Your task to perform on an android device: allow cookies in the chrome app Image 0: 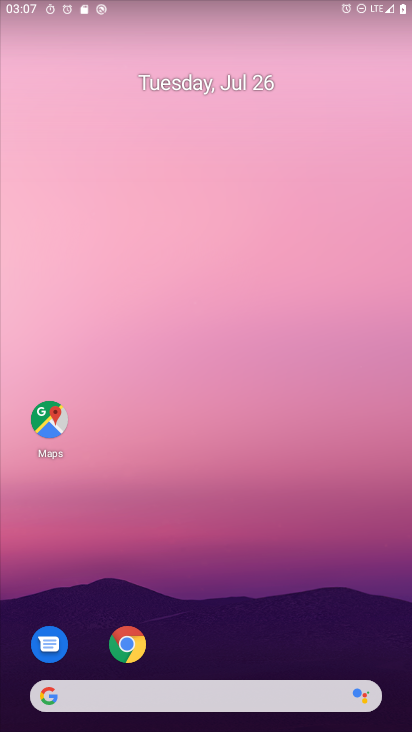
Step 0: click (124, 651)
Your task to perform on an android device: allow cookies in the chrome app Image 1: 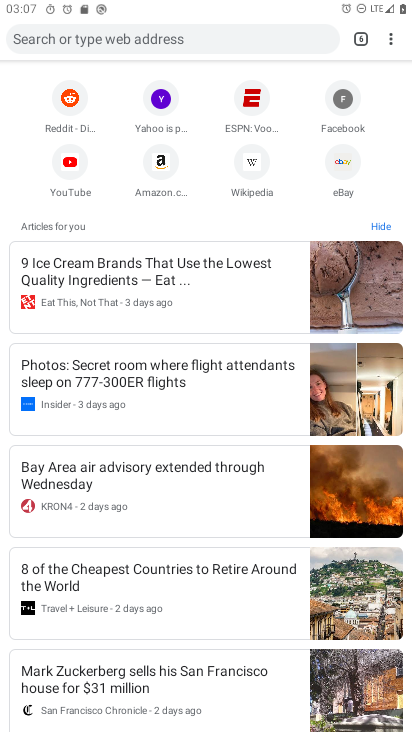
Step 1: drag from (392, 37) to (274, 320)
Your task to perform on an android device: allow cookies in the chrome app Image 2: 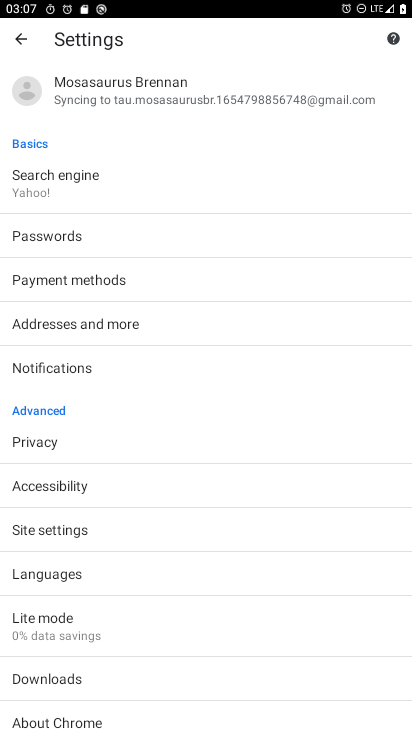
Step 2: click (50, 527)
Your task to perform on an android device: allow cookies in the chrome app Image 3: 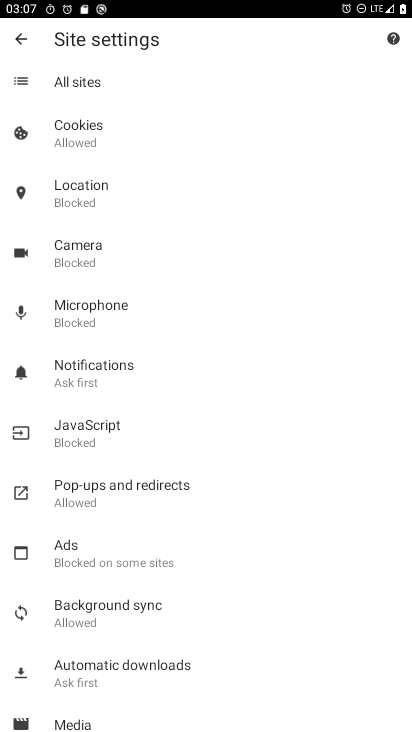
Step 3: click (83, 142)
Your task to perform on an android device: allow cookies in the chrome app Image 4: 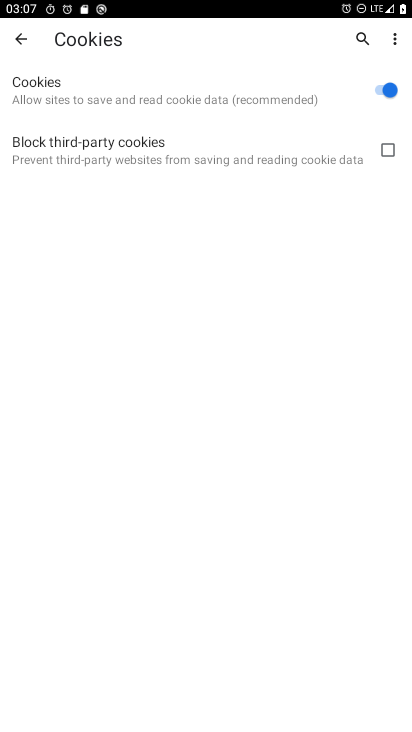
Step 4: task complete